Your task to perform on an android device: Search for "jbl flip 4" on target, select the first entry, add it to the cart, then select checkout. Image 0: 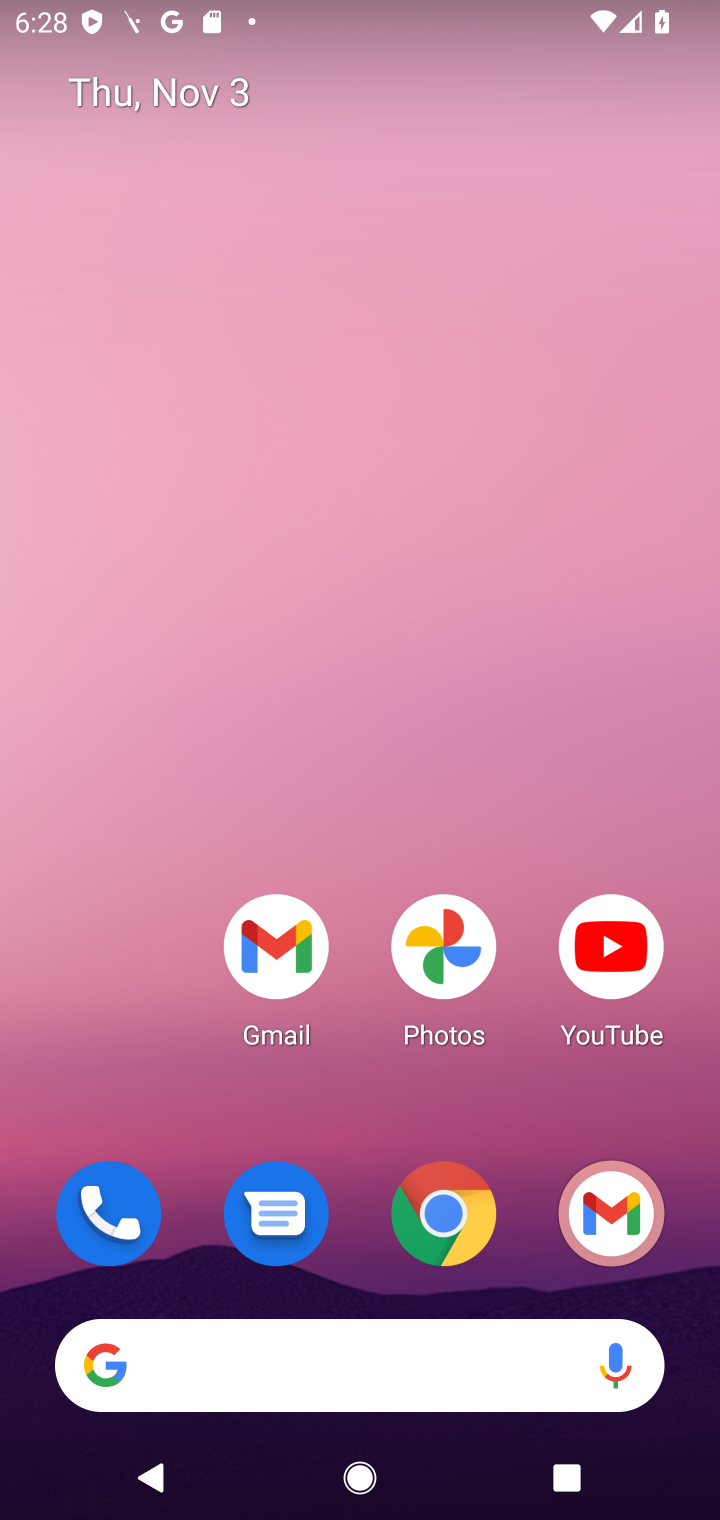
Step 0: click (422, 1226)
Your task to perform on an android device: Search for "jbl flip 4" on target, select the first entry, add it to the cart, then select checkout. Image 1: 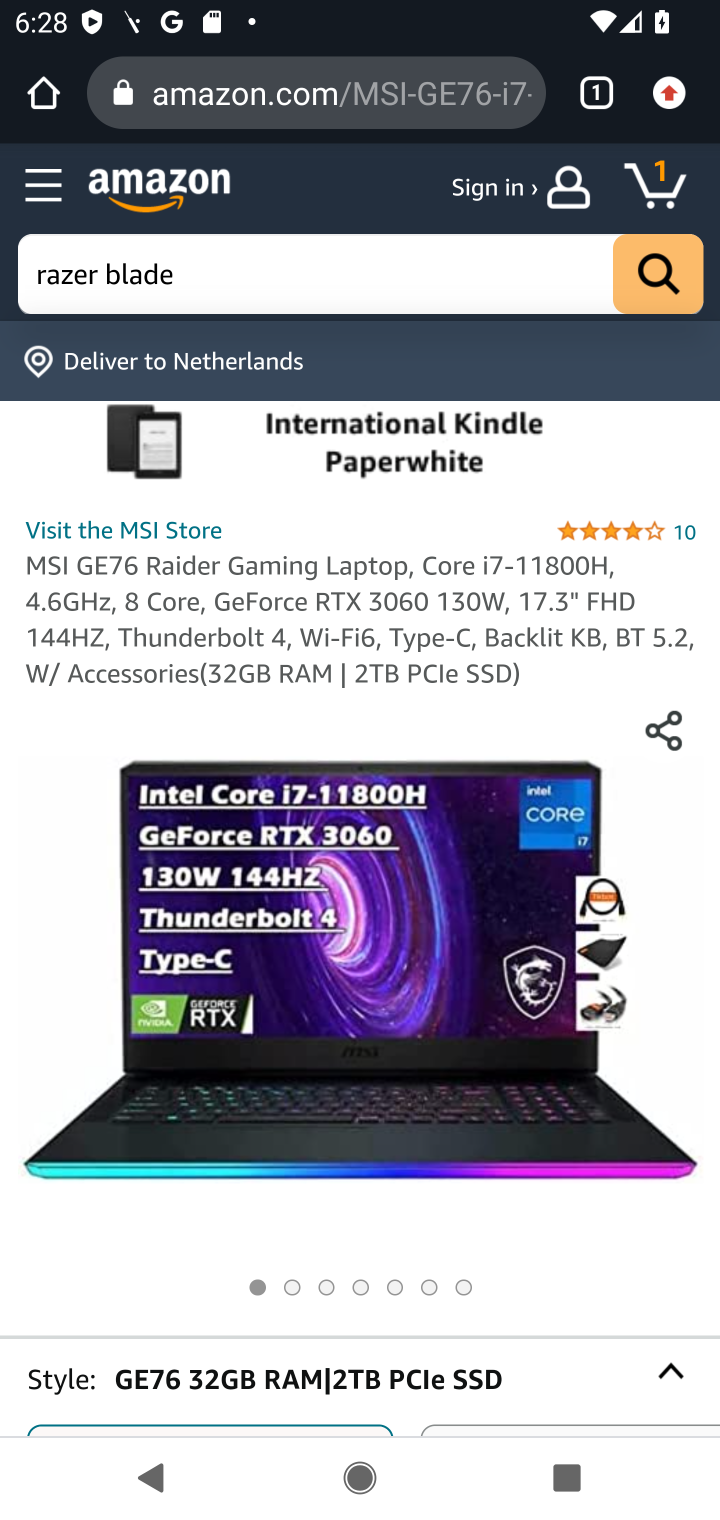
Step 1: click (278, 105)
Your task to perform on an android device: Search for "jbl flip 4" on target, select the first entry, add it to the cart, then select checkout. Image 2: 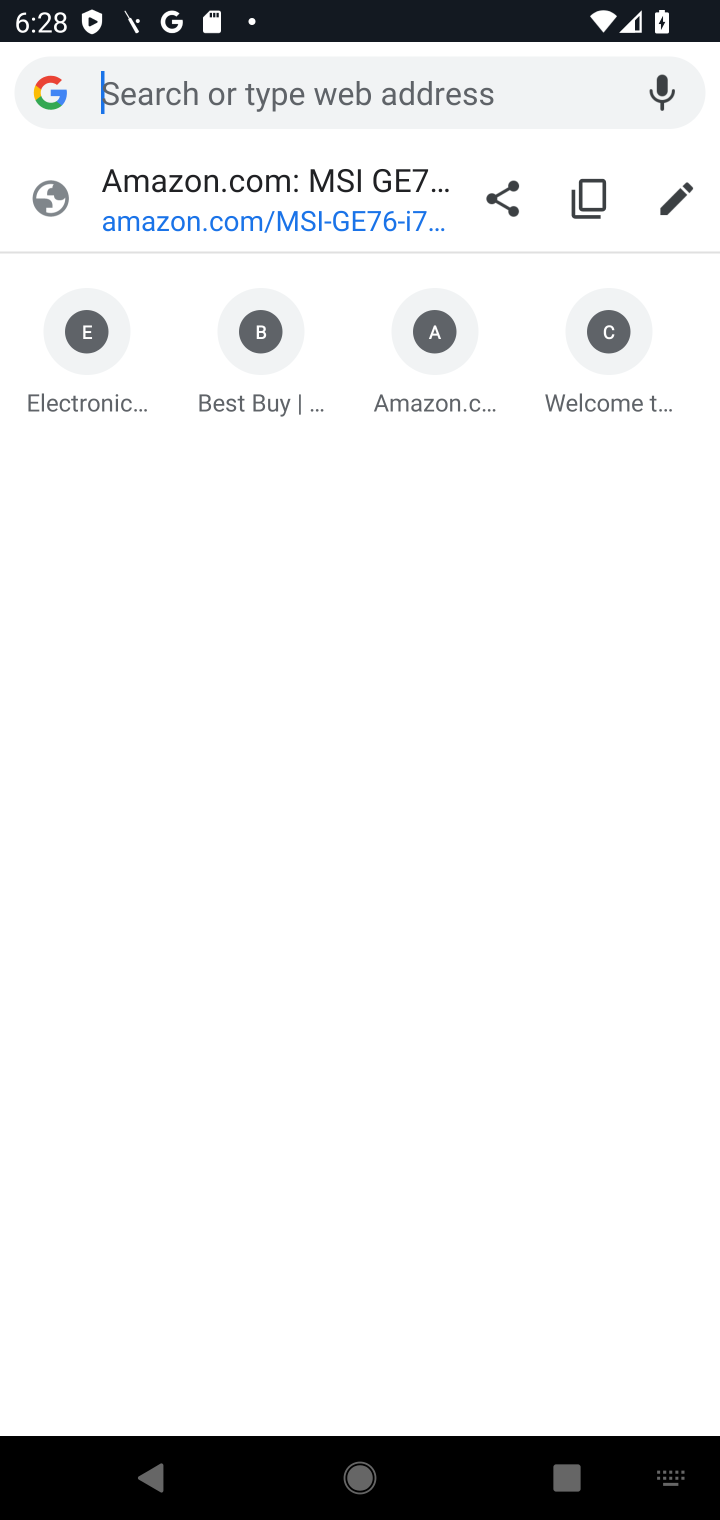
Step 2: type "target.com"
Your task to perform on an android device: Search for "jbl flip 4" on target, select the first entry, add it to the cart, then select checkout. Image 3: 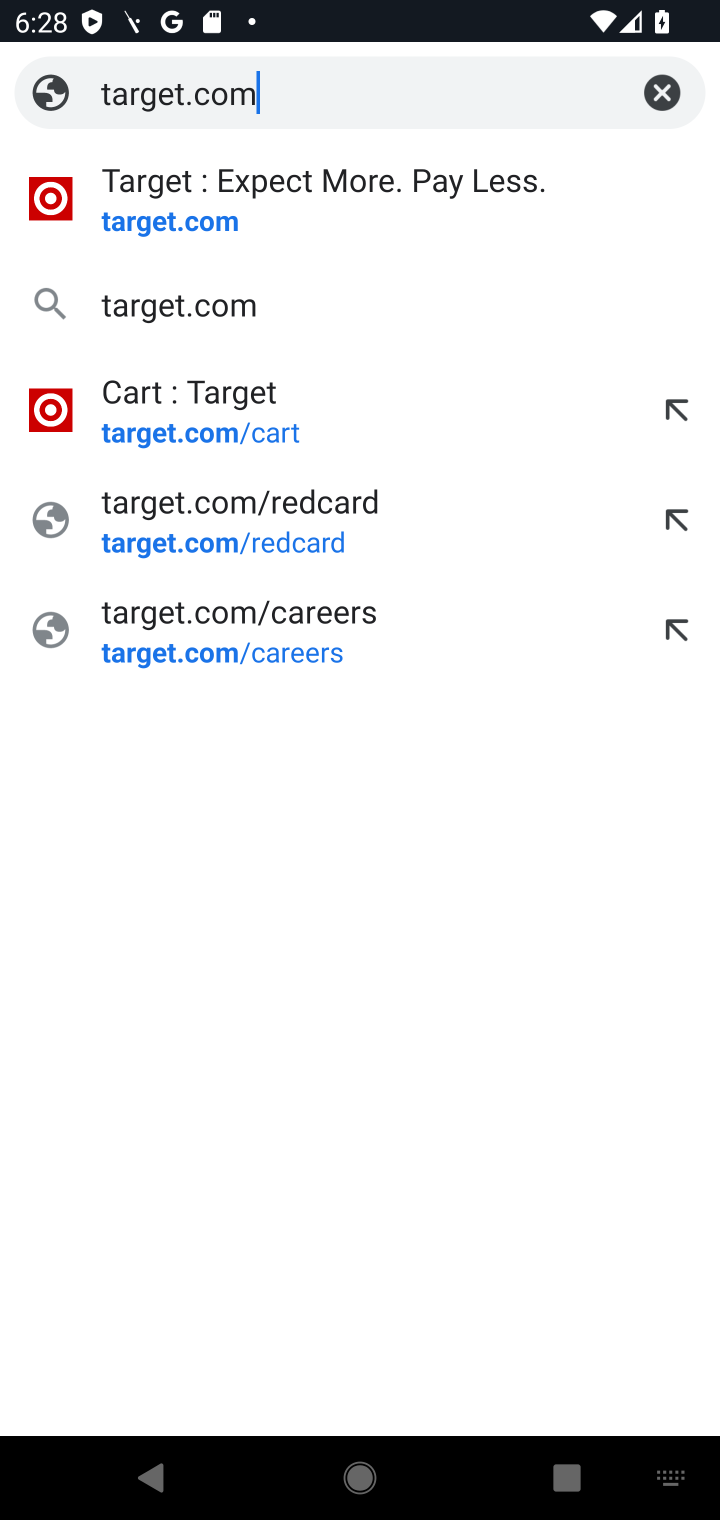
Step 3: click (197, 220)
Your task to perform on an android device: Search for "jbl flip 4" on target, select the first entry, add it to the cart, then select checkout. Image 4: 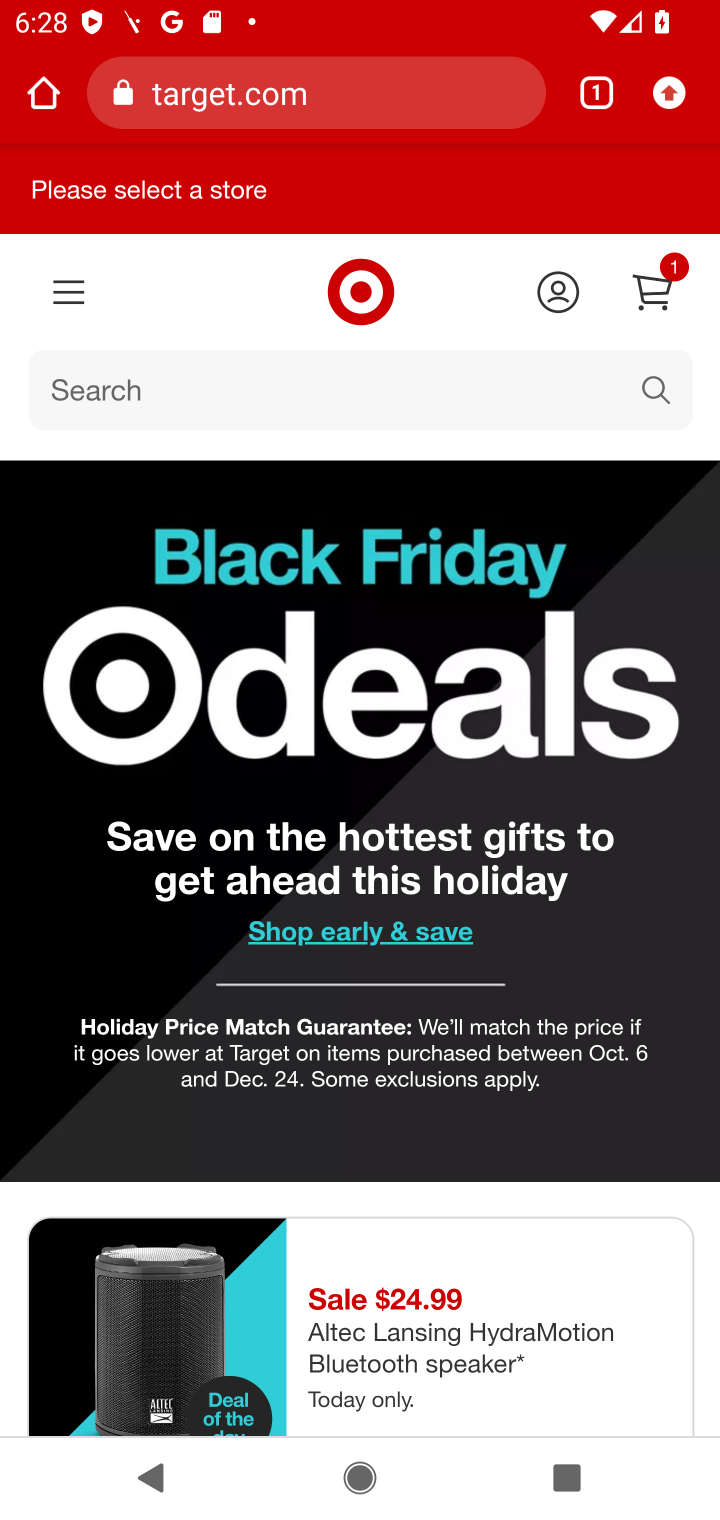
Step 4: click (642, 397)
Your task to perform on an android device: Search for "jbl flip 4" on target, select the first entry, add it to the cart, then select checkout. Image 5: 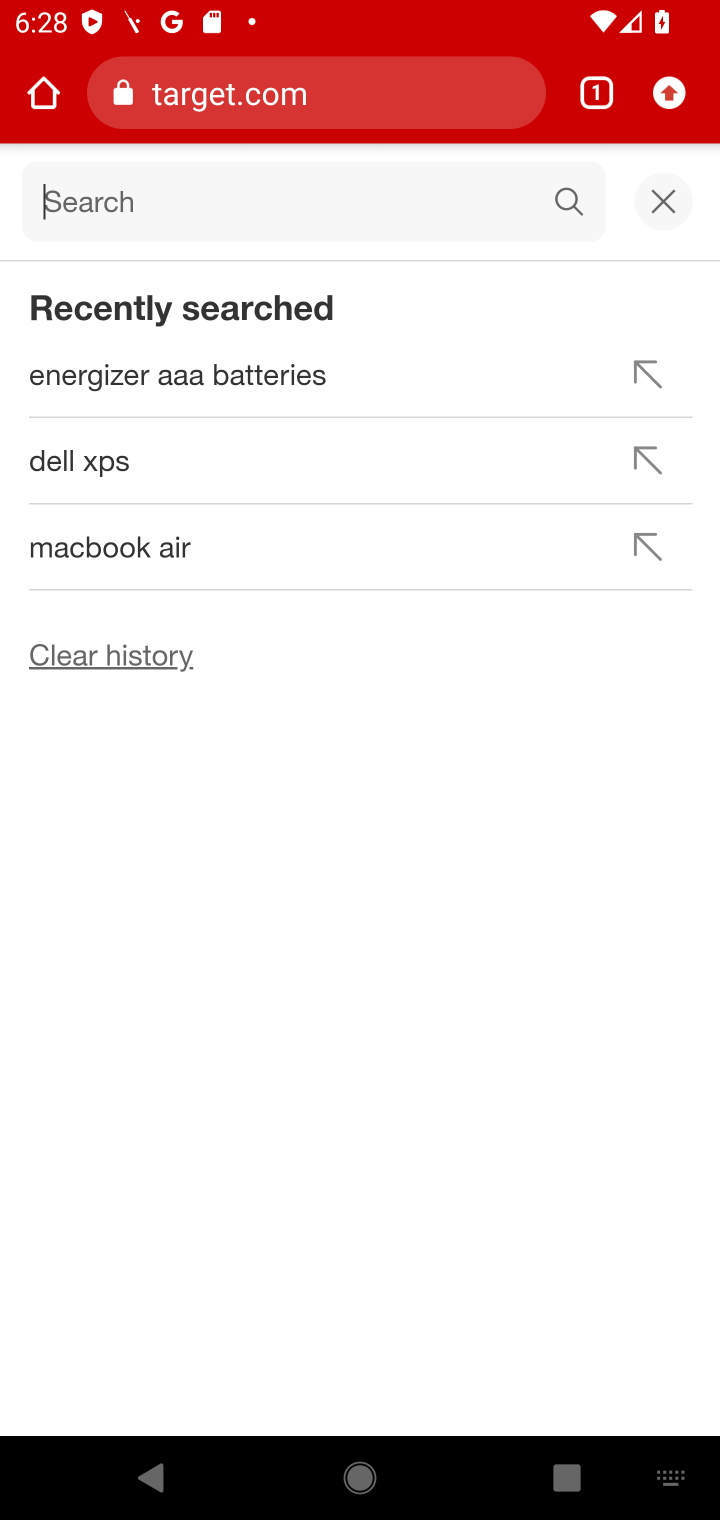
Step 5: type "jbl flip 4"
Your task to perform on an android device: Search for "jbl flip 4" on target, select the first entry, add it to the cart, then select checkout. Image 6: 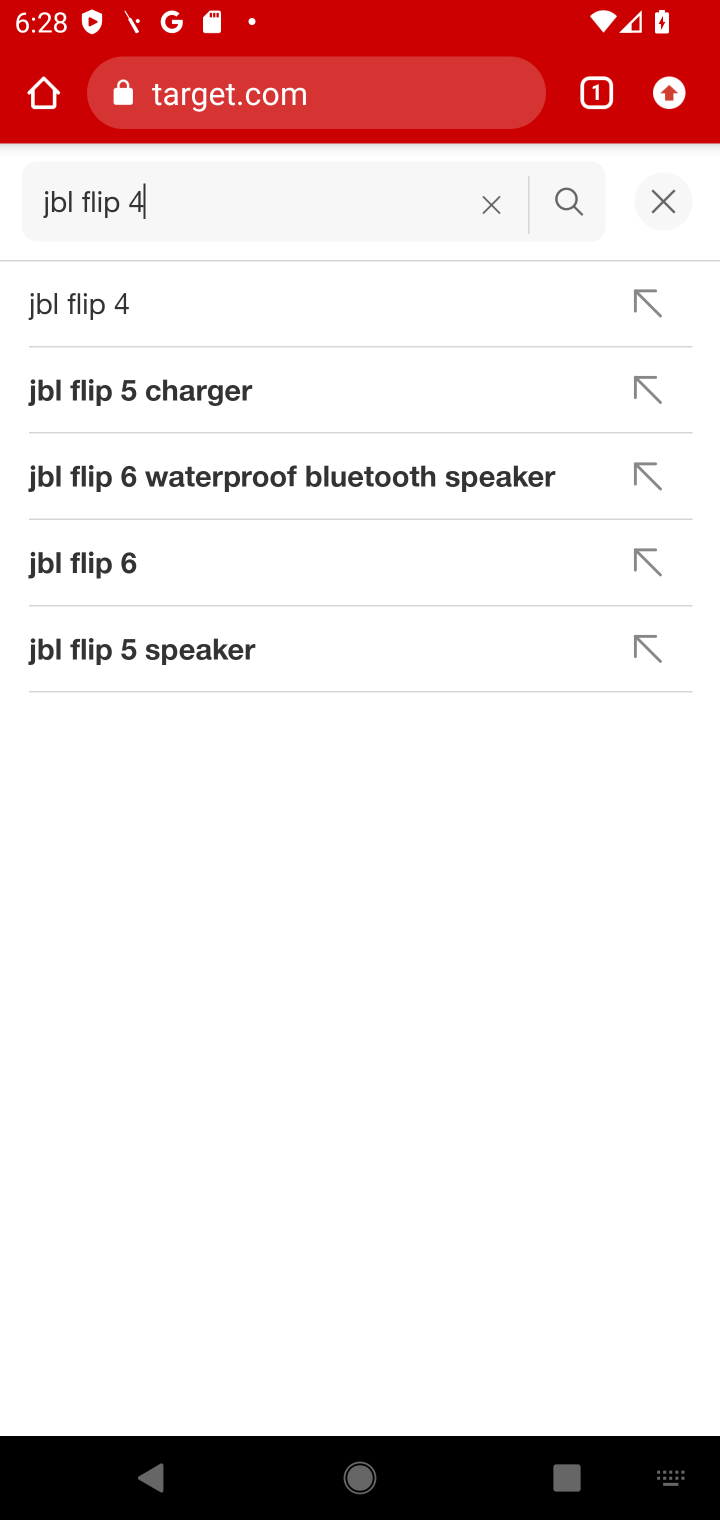
Step 6: click (107, 314)
Your task to perform on an android device: Search for "jbl flip 4" on target, select the first entry, add it to the cart, then select checkout. Image 7: 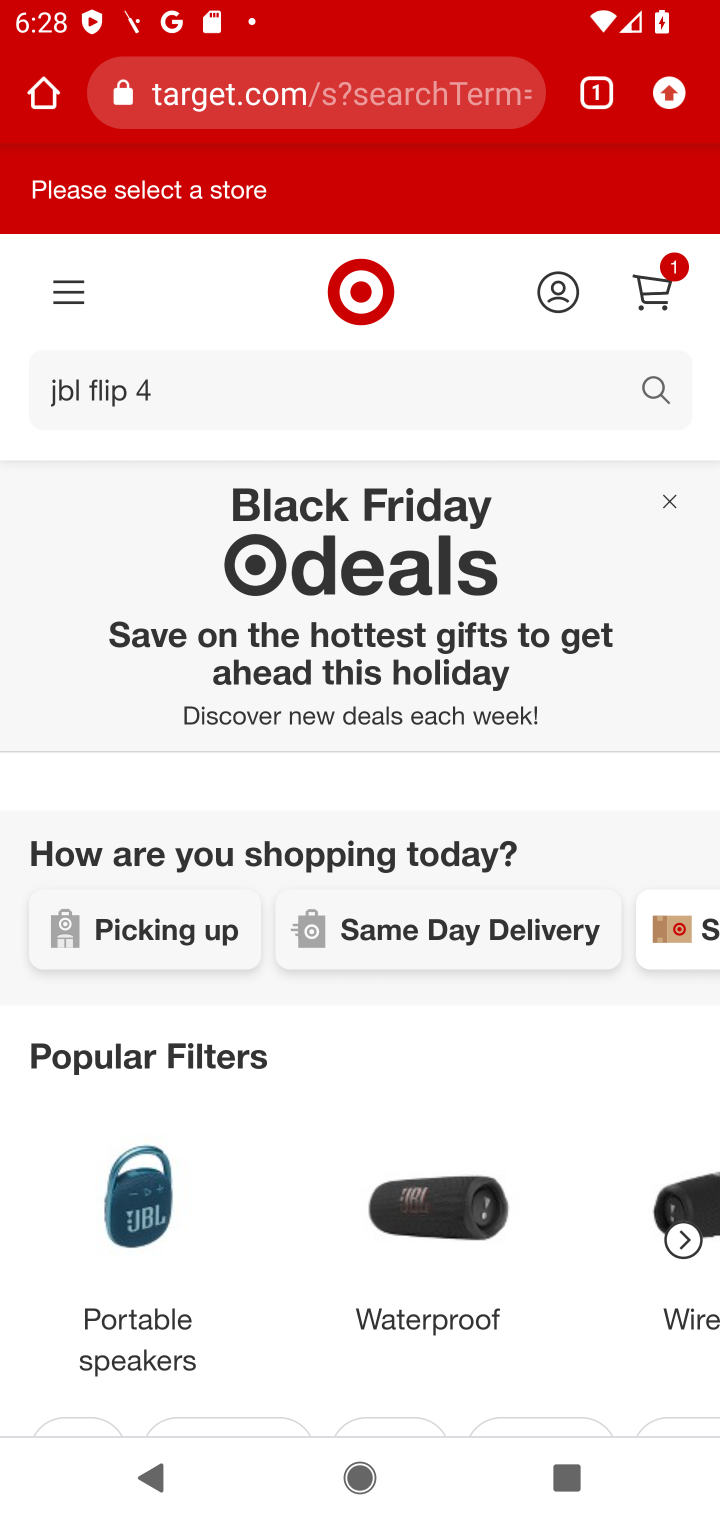
Step 7: drag from (368, 1030) to (359, 542)
Your task to perform on an android device: Search for "jbl flip 4" on target, select the first entry, add it to the cart, then select checkout. Image 8: 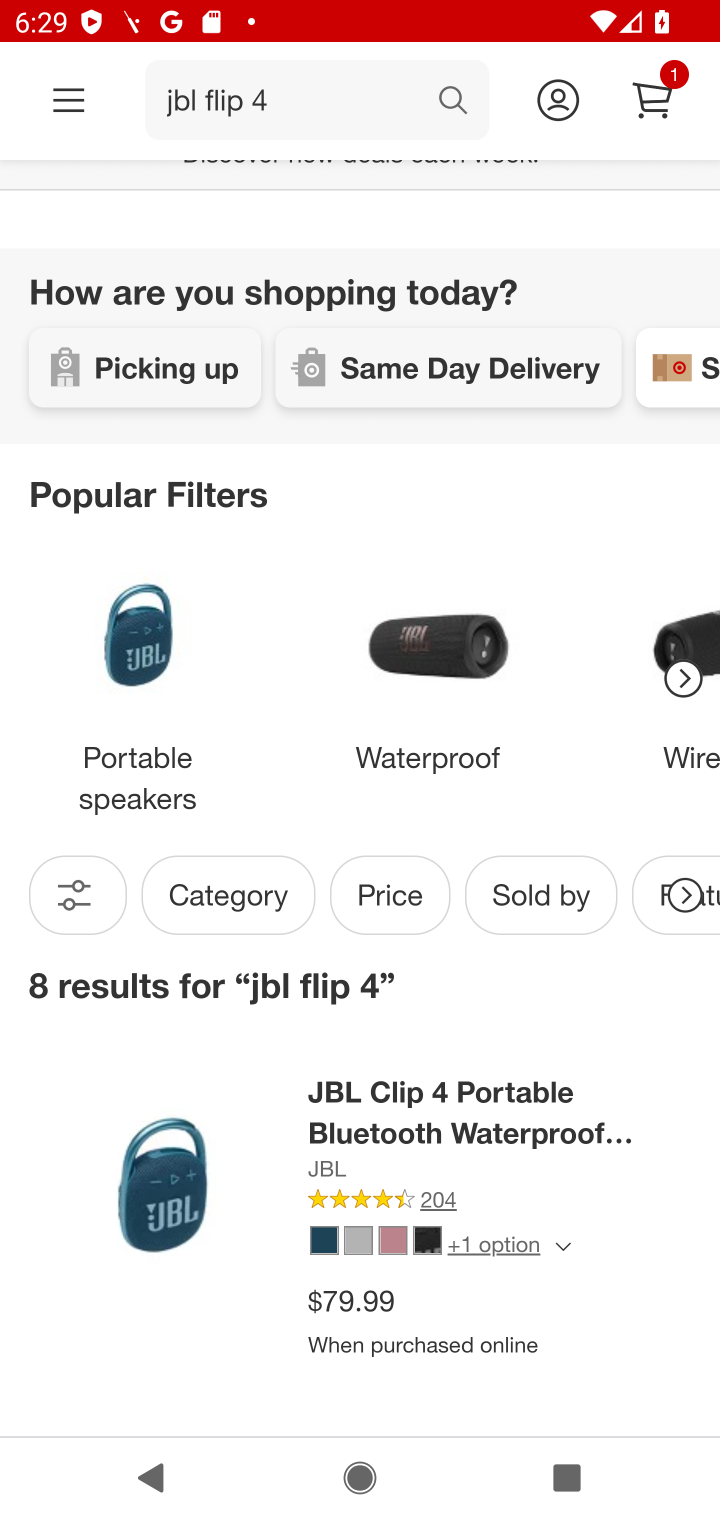
Step 8: click (356, 1178)
Your task to perform on an android device: Search for "jbl flip 4" on target, select the first entry, add it to the cart, then select checkout. Image 9: 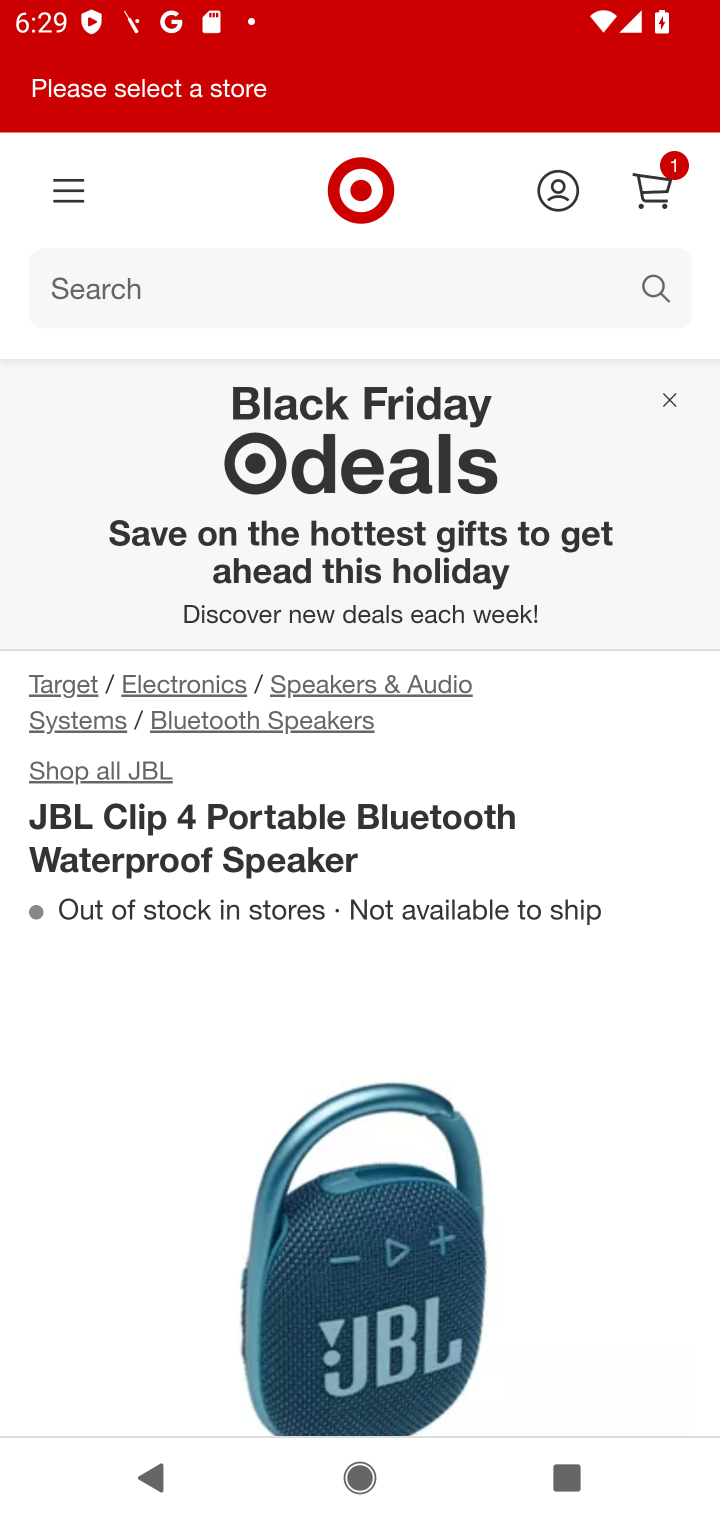
Step 9: drag from (346, 1144) to (338, 459)
Your task to perform on an android device: Search for "jbl flip 4" on target, select the first entry, add it to the cart, then select checkout. Image 10: 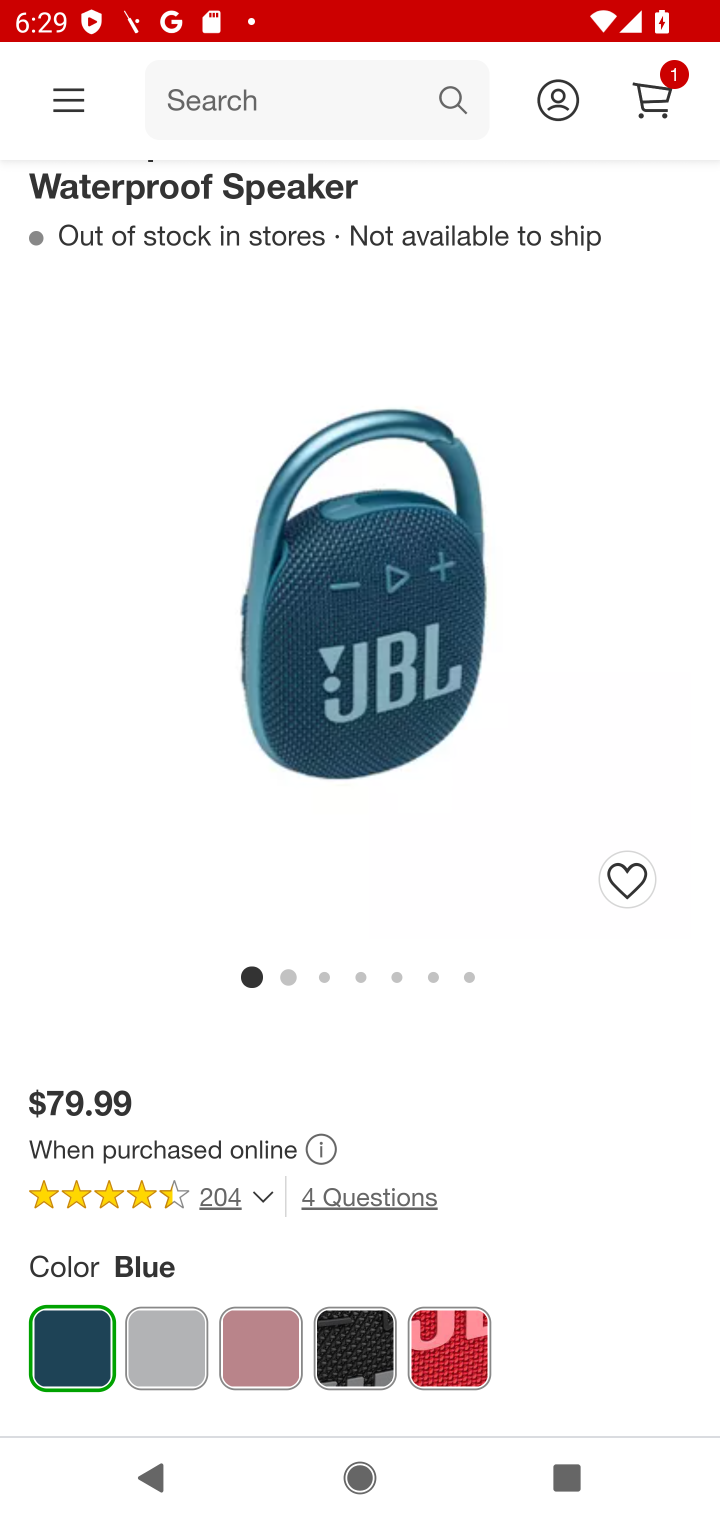
Step 10: drag from (322, 1080) to (347, 559)
Your task to perform on an android device: Search for "jbl flip 4" on target, select the first entry, add it to the cart, then select checkout. Image 11: 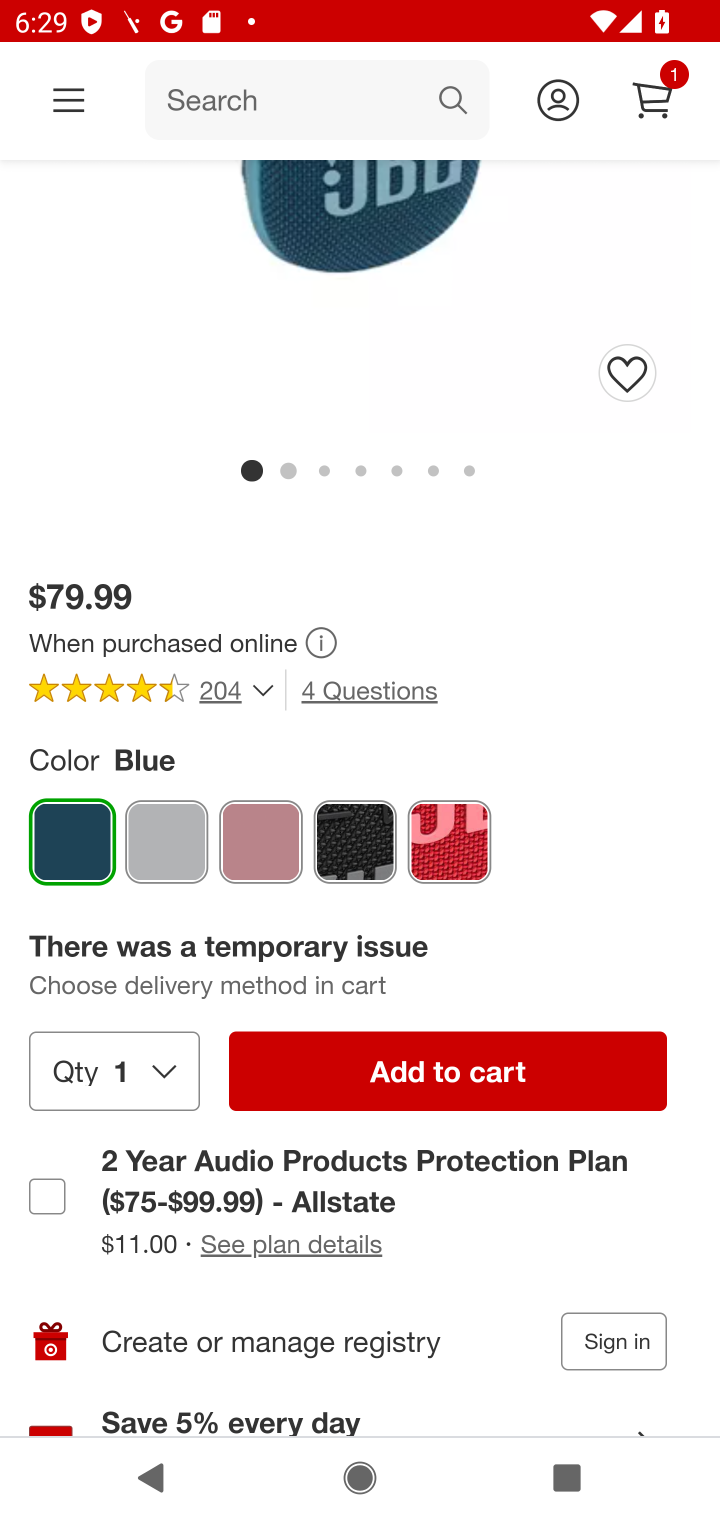
Step 11: click (412, 1077)
Your task to perform on an android device: Search for "jbl flip 4" on target, select the first entry, add it to the cart, then select checkout. Image 12: 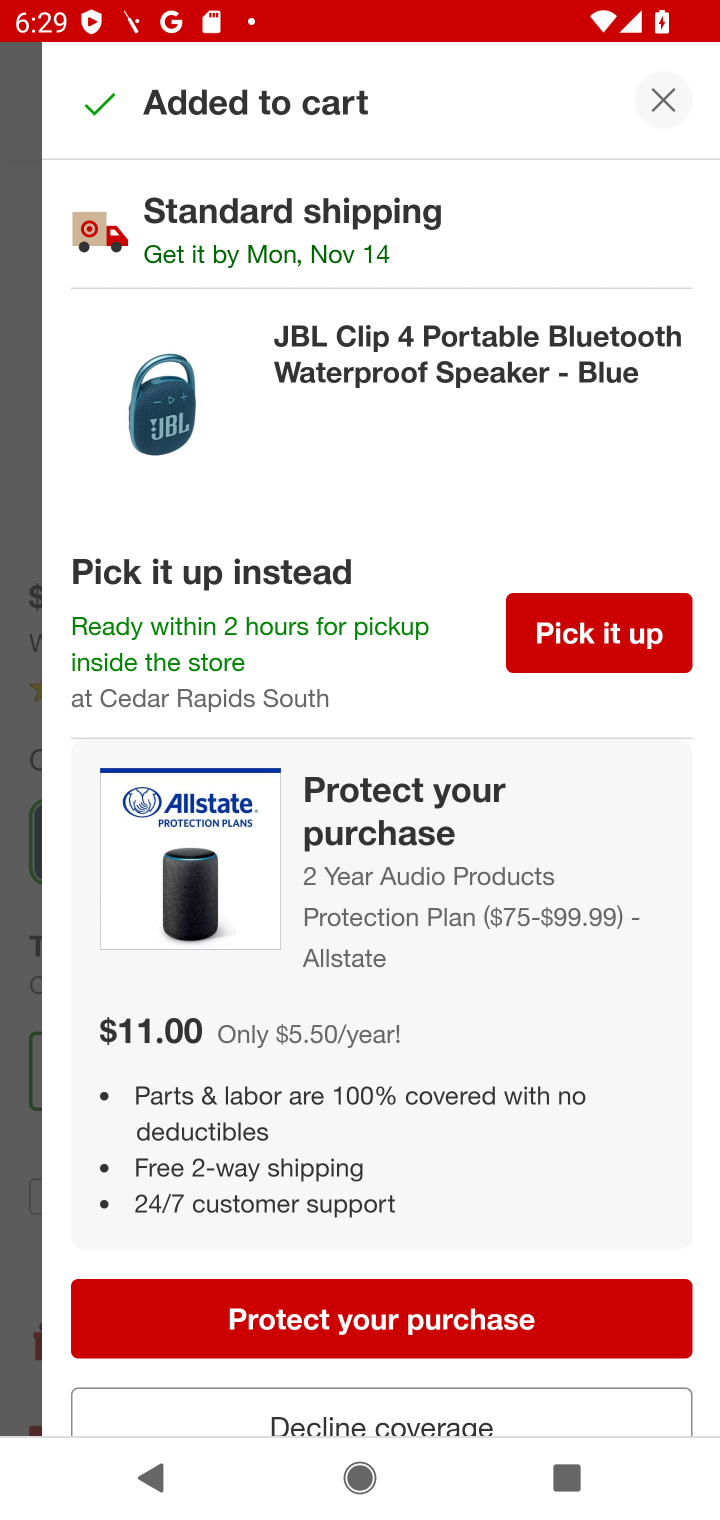
Step 12: click (651, 112)
Your task to perform on an android device: Search for "jbl flip 4" on target, select the first entry, add it to the cart, then select checkout. Image 13: 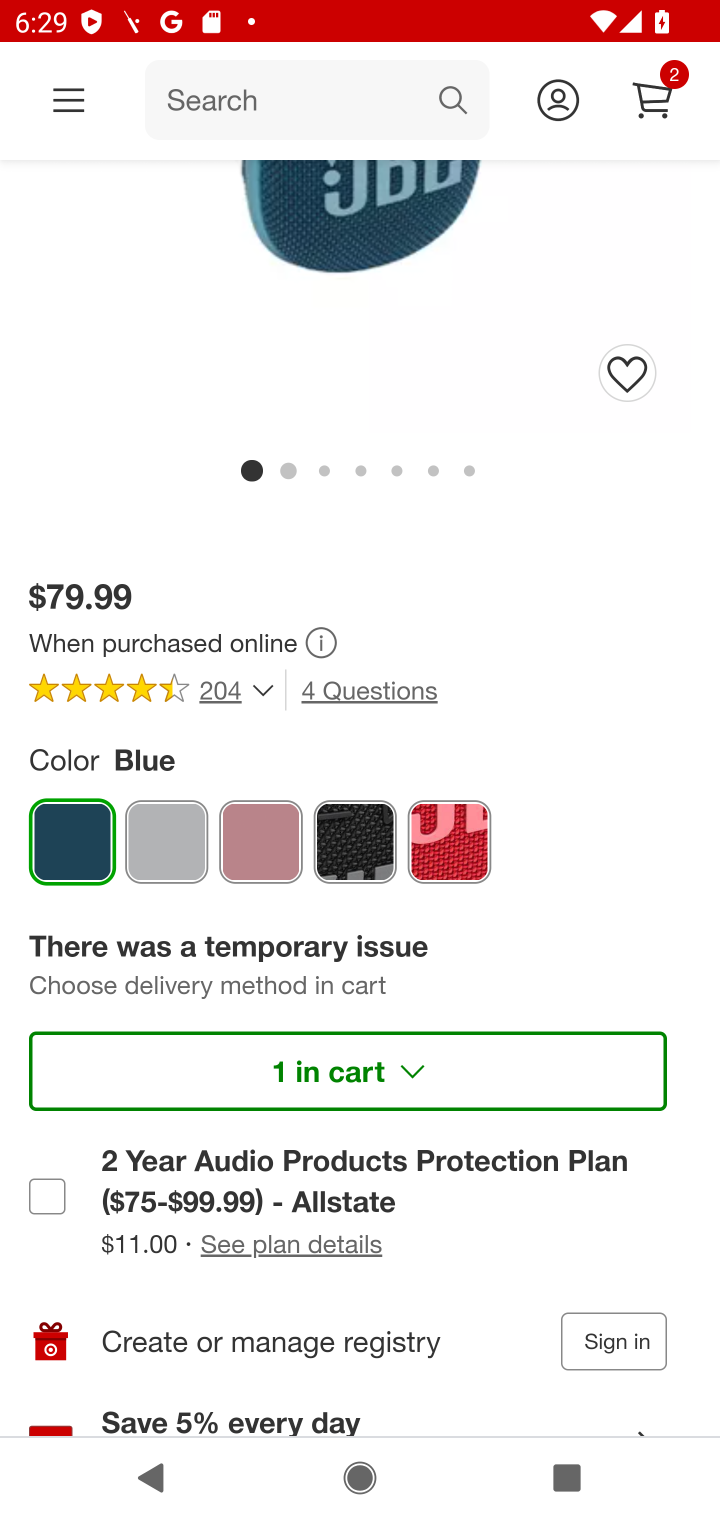
Step 13: click (643, 106)
Your task to perform on an android device: Search for "jbl flip 4" on target, select the first entry, add it to the cart, then select checkout. Image 14: 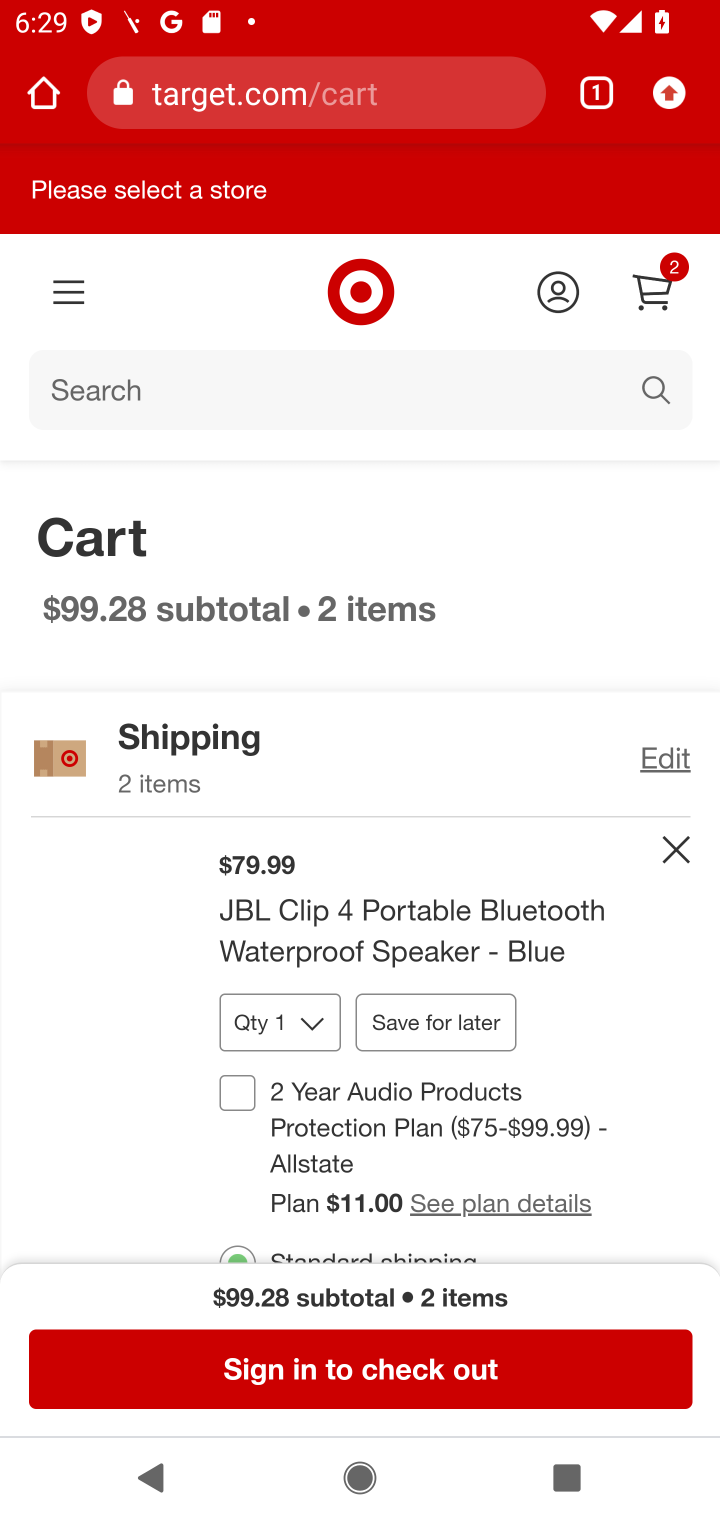
Step 14: click (355, 1381)
Your task to perform on an android device: Search for "jbl flip 4" on target, select the first entry, add it to the cart, then select checkout. Image 15: 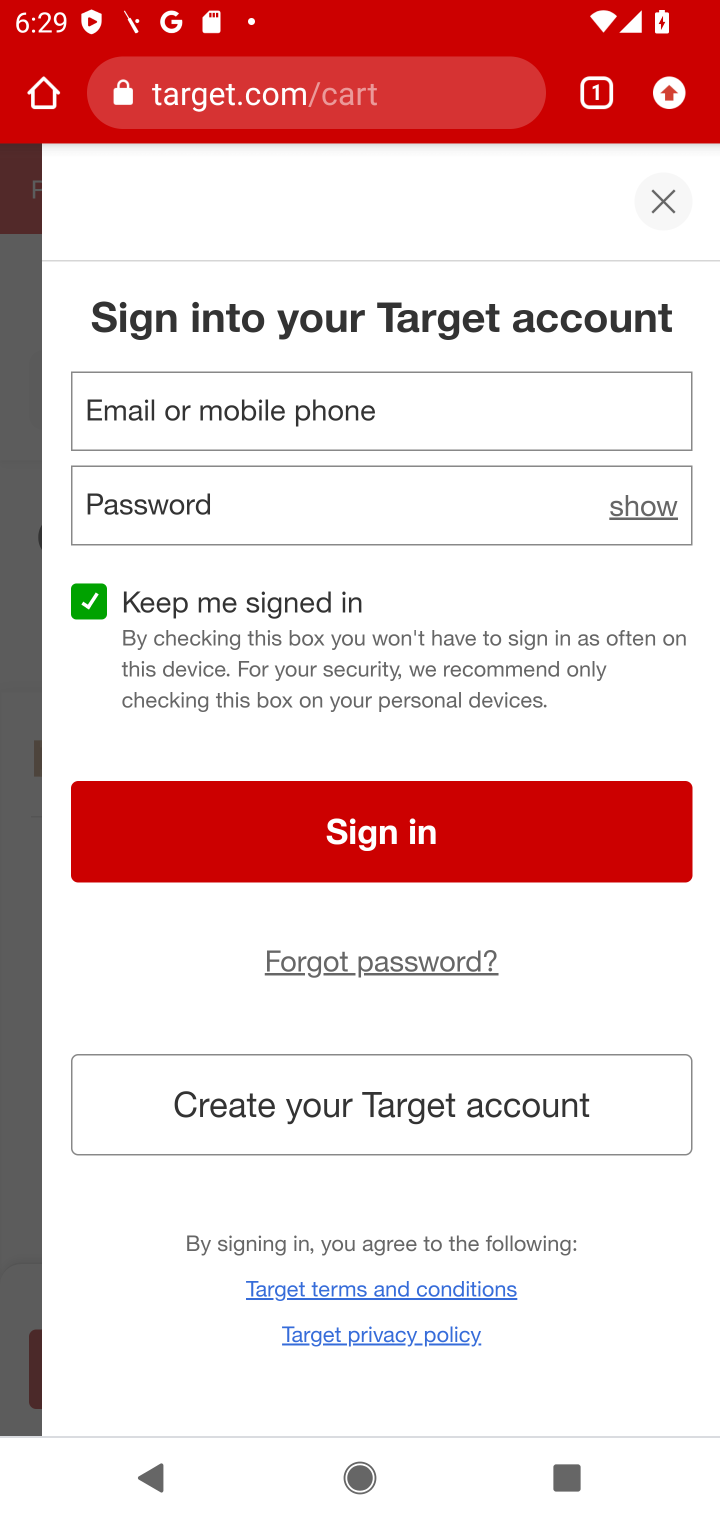
Step 15: task complete